Your task to perform on an android device: Go to eBay Image 0: 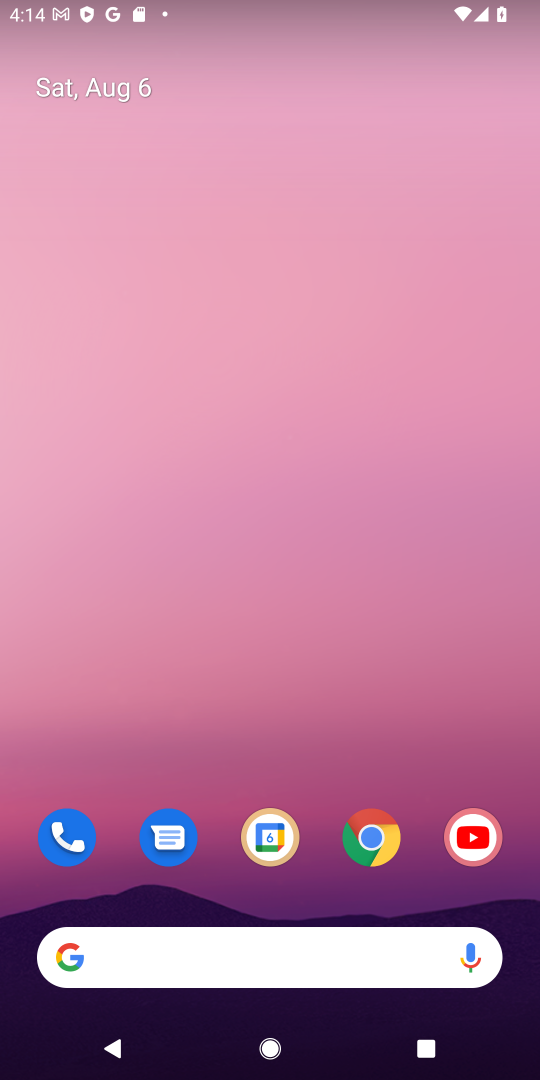
Step 0: click (372, 834)
Your task to perform on an android device: Go to eBay Image 1: 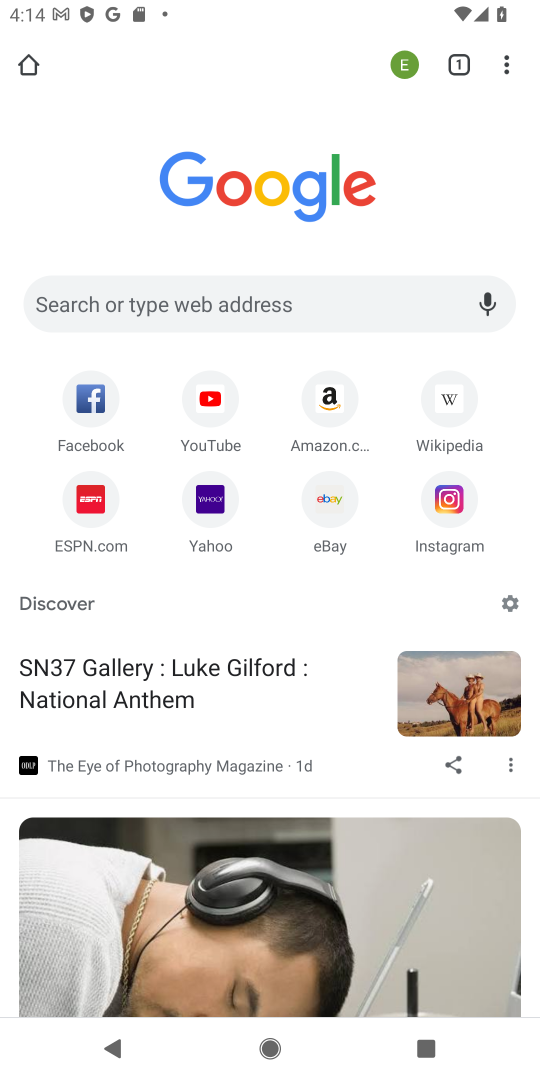
Step 1: click (160, 302)
Your task to perform on an android device: Go to eBay Image 2: 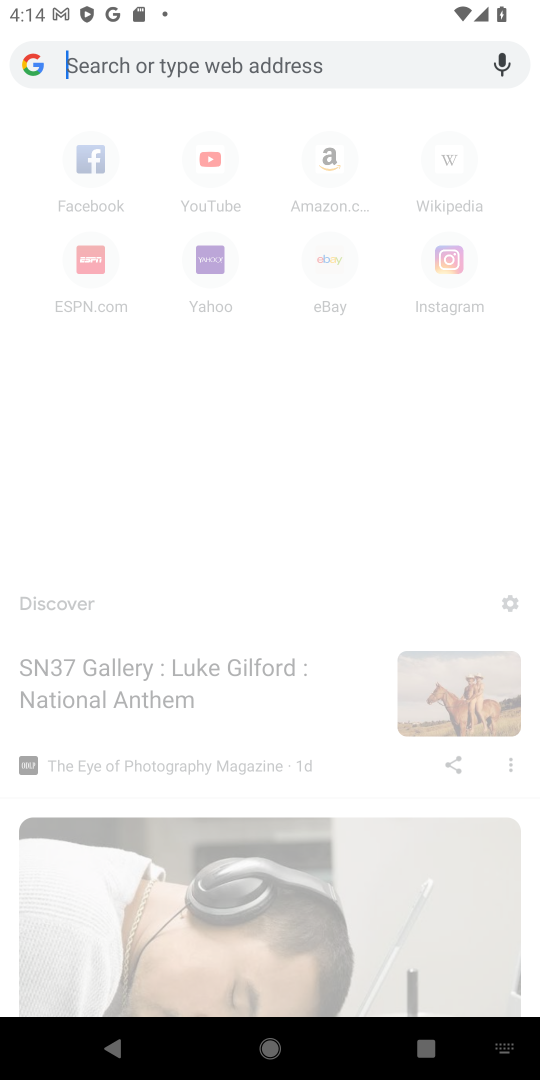
Step 2: type "eBay"
Your task to perform on an android device: Go to eBay Image 3: 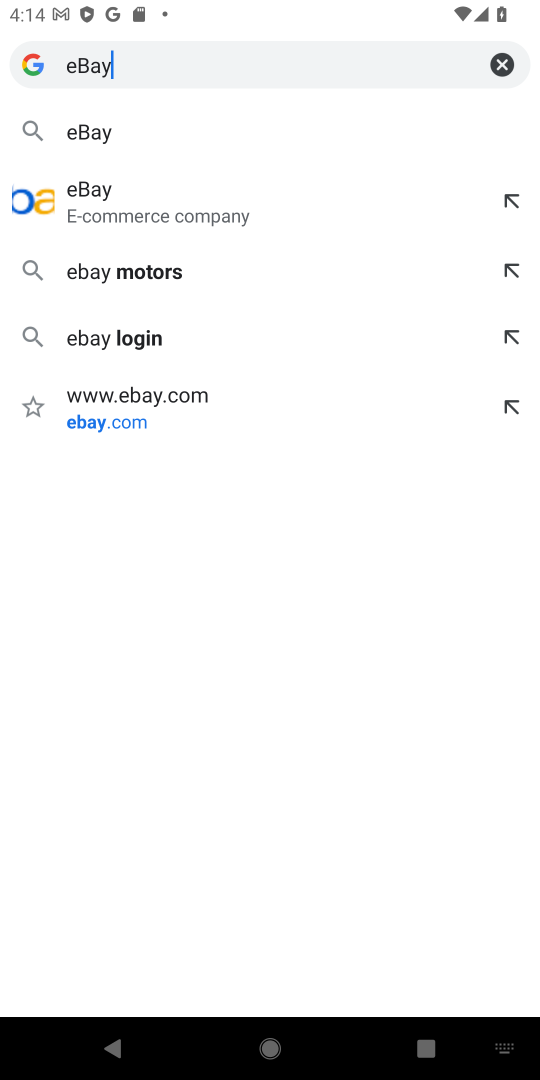
Step 3: click (89, 124)
Your task to perform on an android device: Go to eBay Image 4: 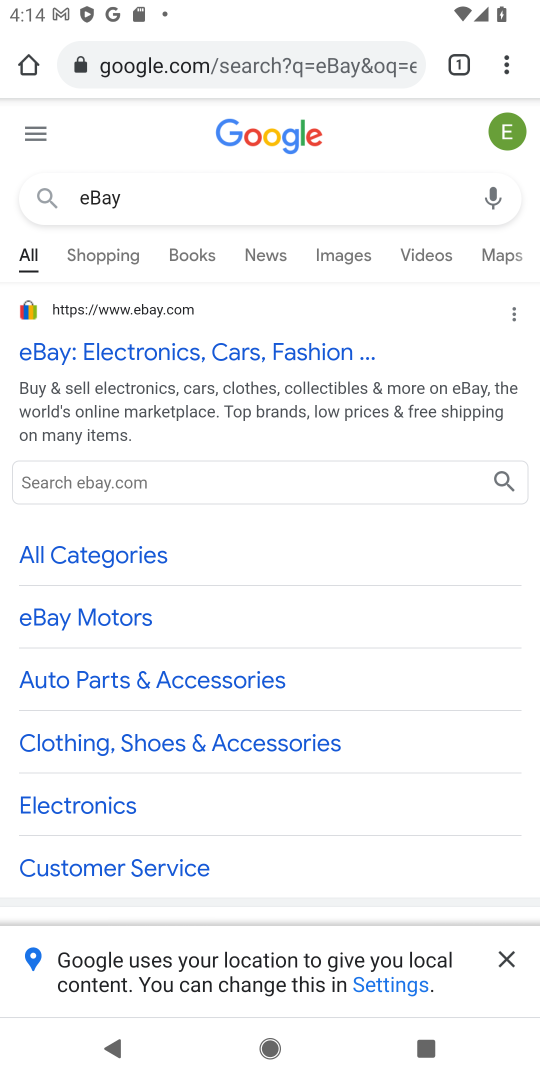
Step 4: click (503, 952)
Your task to perform on an android device: Go to eBay Image 5: 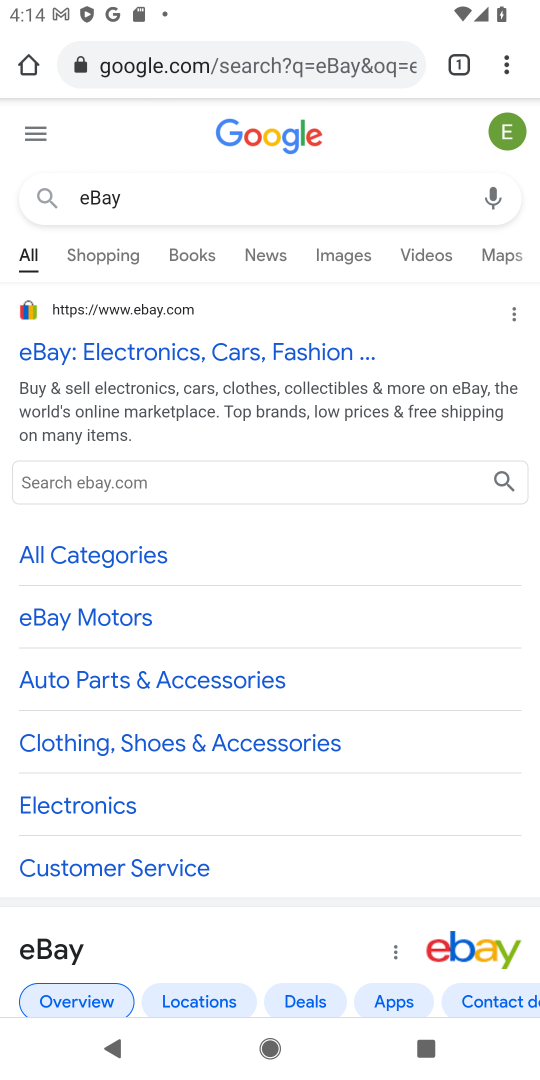
Step 5: click (108, 345)
Your task to perform on an android device: Go to eBay Image 6: 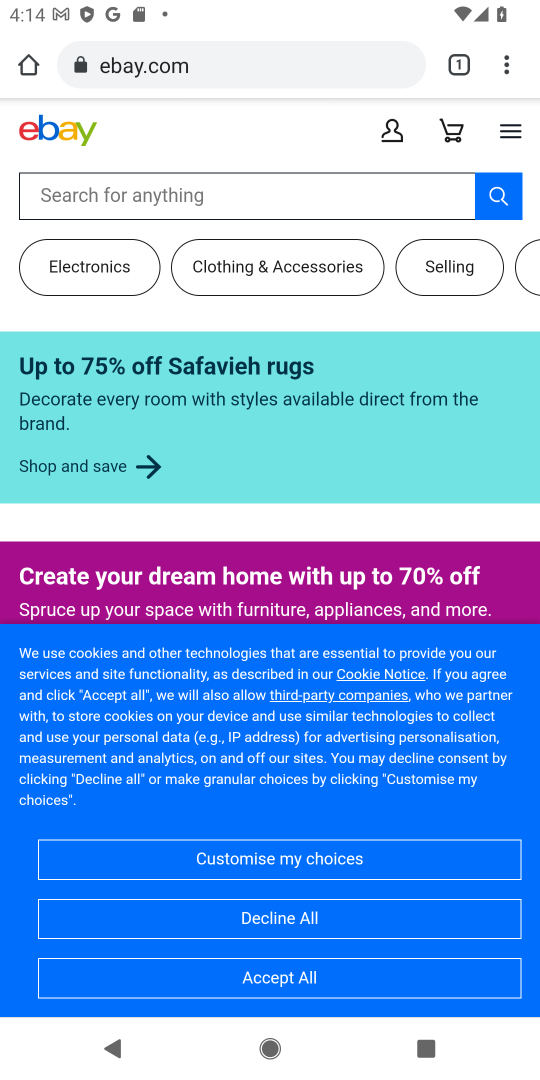
Step 6: click (276, 982)
Your task to perform on an android device: Go to eBay Image 7: 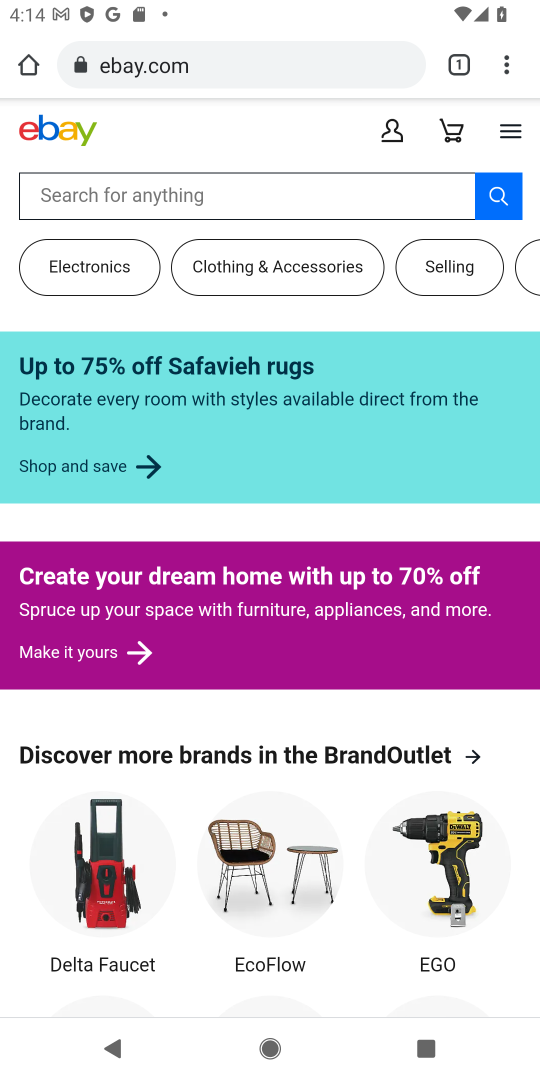
Step 7: task complete